Your task to perform on an android device: What's a goodrestaurant in Austin? Image 0: 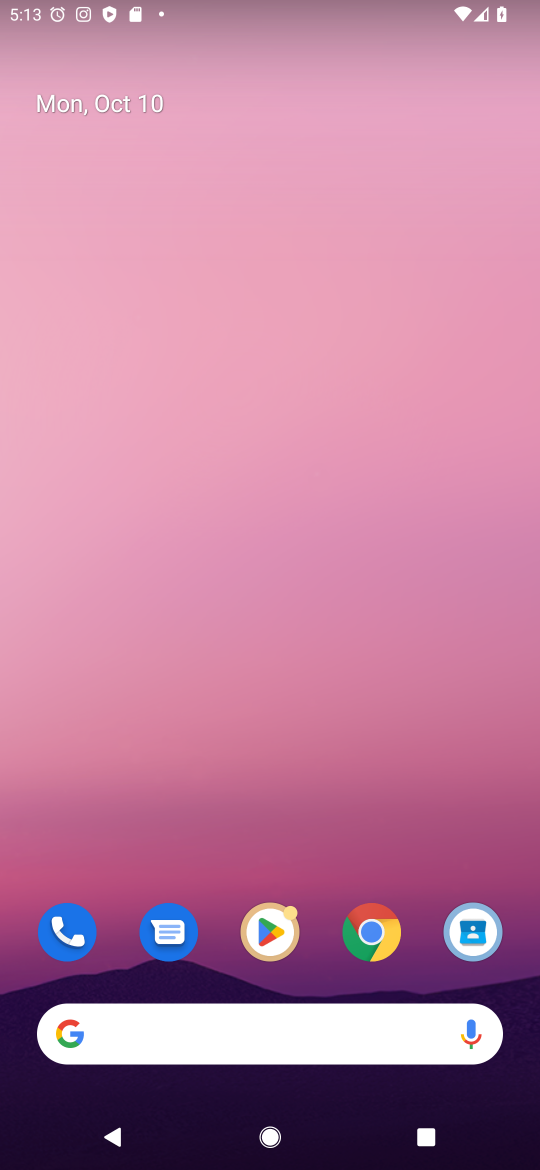
Step 0: click (322, 1040)
Your task to perform on an android device: What's a goodrestaurant in Austin? Image 1: 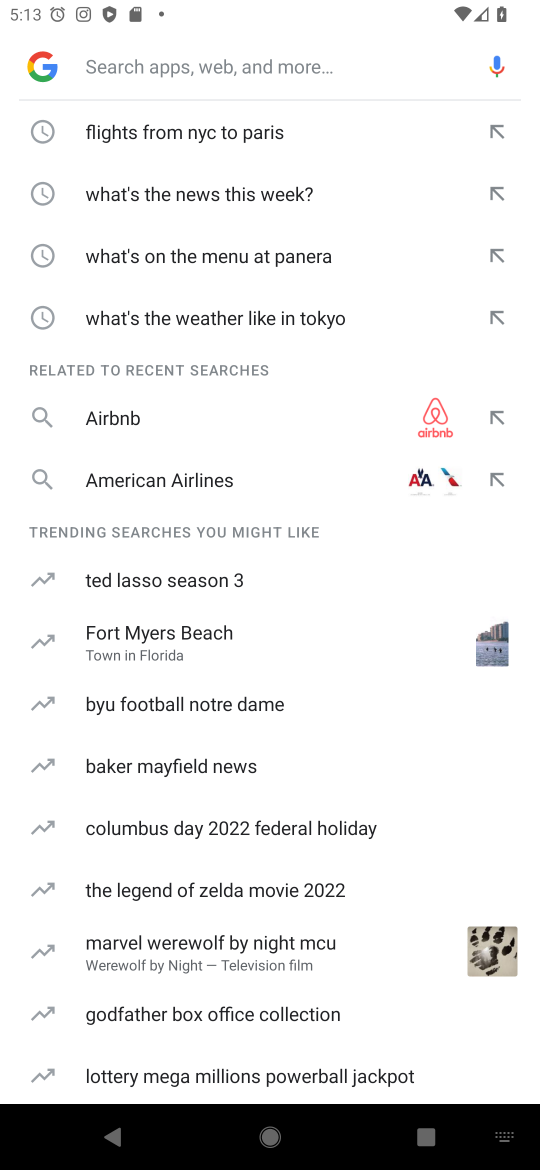
Step 1: type "What's a goodrestaurant in Austin"
Your task to perform on an android device: What's a goodrestaurant in Austin? Image 2: 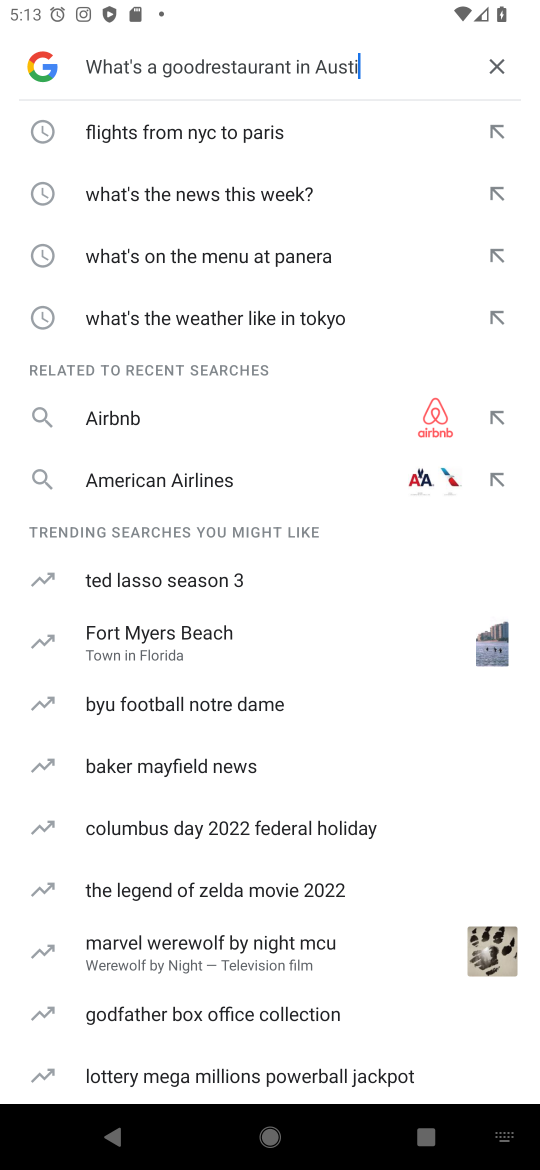
Step 2: press enter
Your task to perform on an android device: What's a goodrestaurant in Austin? Image 3: 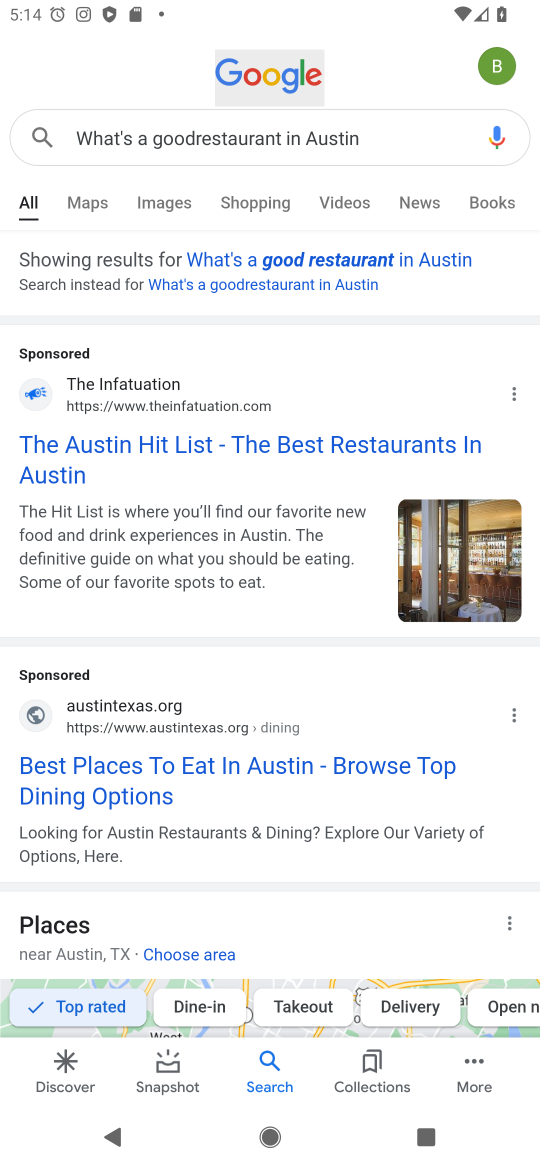
Step 3: click (241, 448)
Your task to perform on an android device: What's a goodrestaurant in Austin? Image 4: 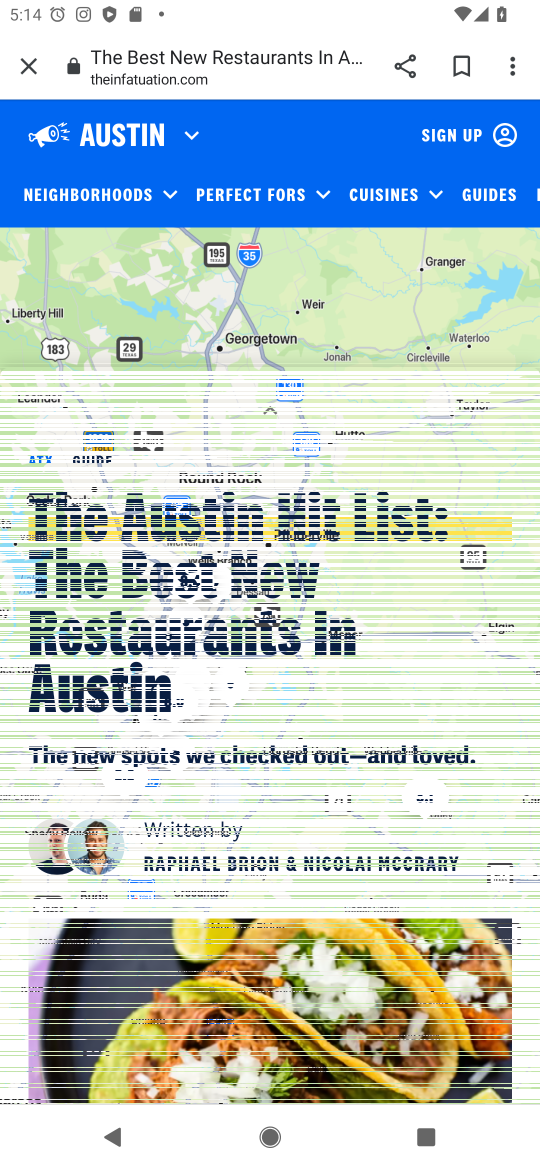
Step 4: task complete